Your task to perform on an android device: make emails show in primary in the gmail app Image 0: 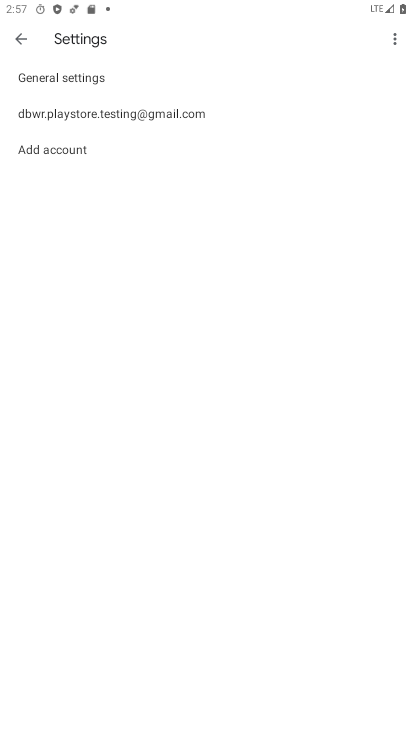
Step 0: press home button
Your task to perform on an android device: make emails show in primary in the gmail app Image 1: 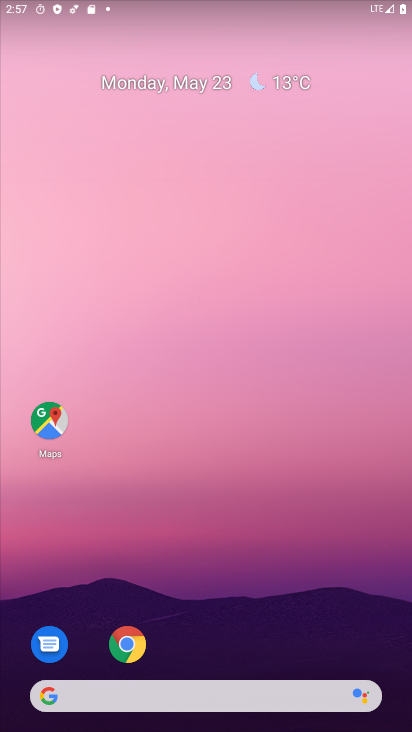
Step 1: drag from (173, 672) to (206, 200)
Your task to perform on an android device: make emails show in primary in the gmail app Image 2: 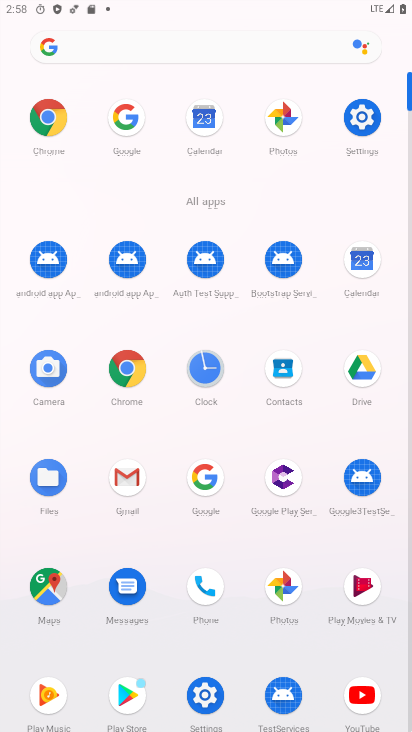
Step 2: click (115, 487)
Your task to perform on an android device: make emails show in primary in the gmail app Image 3: 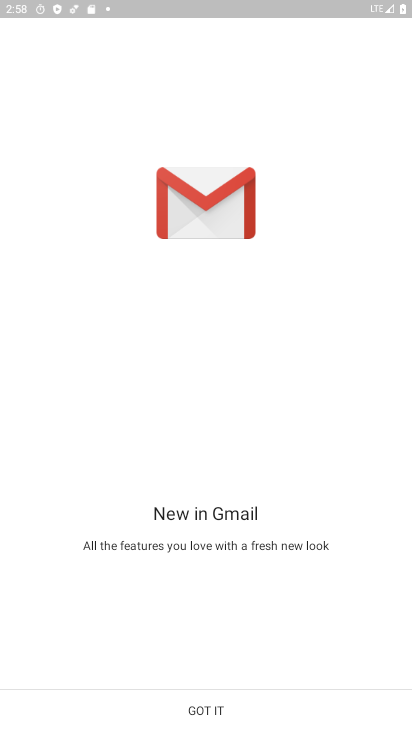
Step 3: click (186, 700)
Your task to perform on an android device: make emails show in primary in the gmail app Image 4: 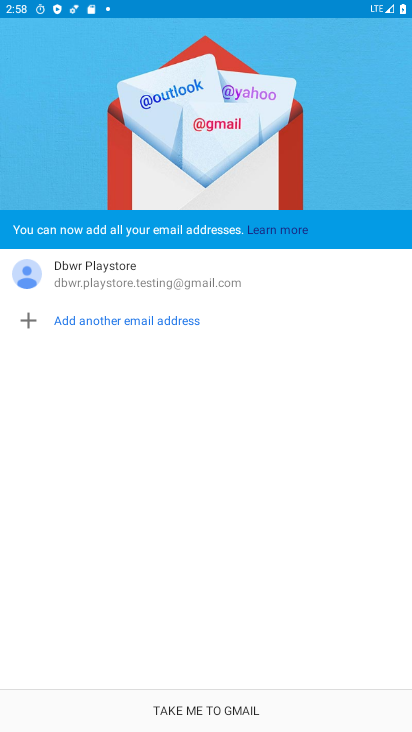
Step 4: click (282, 694)
Your task to perform on an android device: make emails show in primary in the gmail app Image 5: 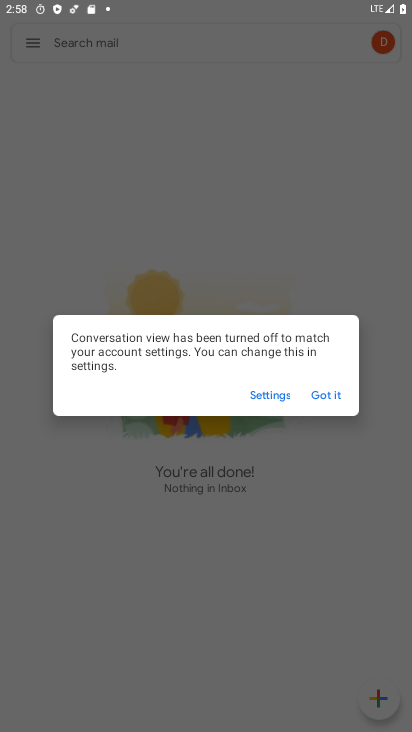
Step 5: click (321, 383)
Your task to perform on an android device: make emails show in primary in the gmail app Image 6: 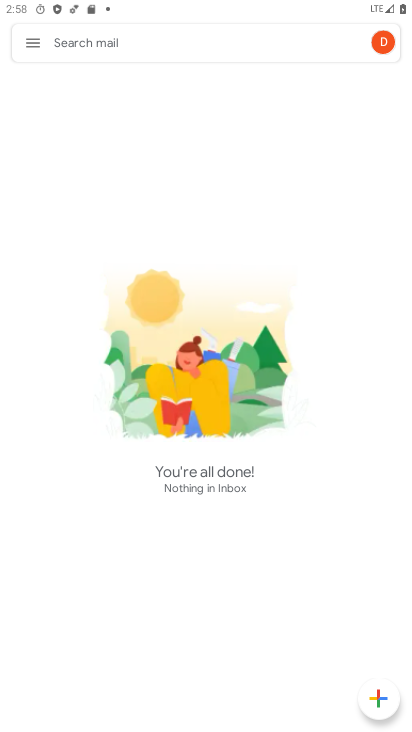
Step 6: click (32, 25)
Your task to perform on an android device: make emails show in primary in the gmail app Image 7: 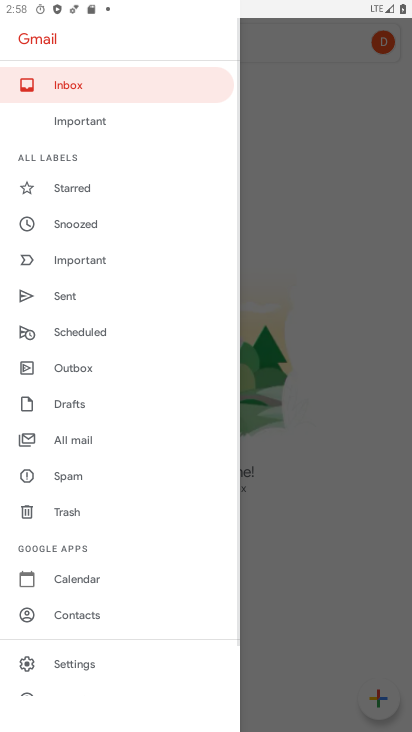
Step 7: click (89, 647)
Your task to perform on an android device: make emails show in primary in the gmail app Image 8: 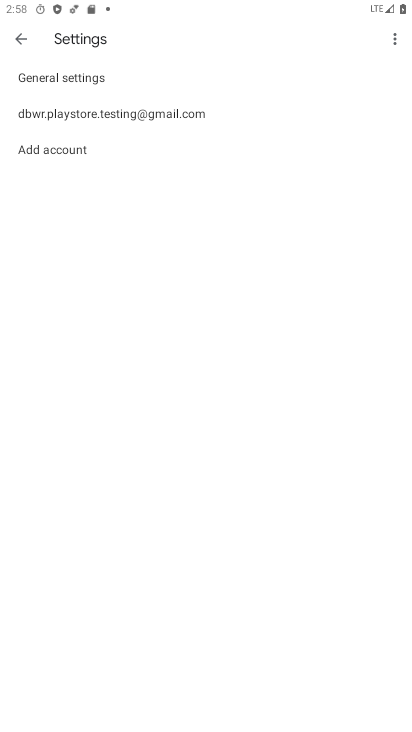
Step 8: click (100, 121)
Your task to perform on an android device: make emails show in primary in the gmail app Image 9: 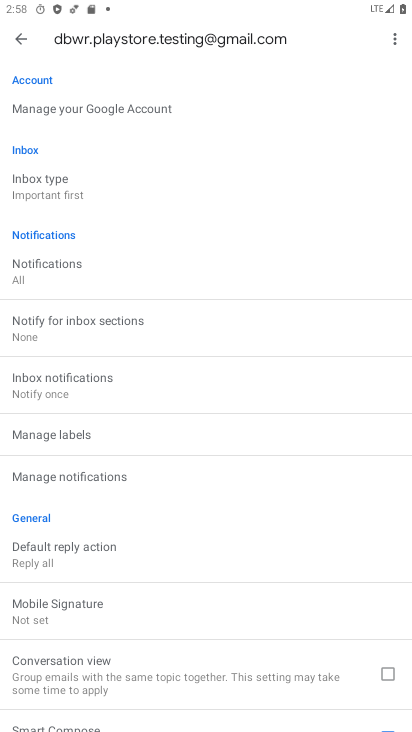
Step 9: click (63, 178)
Your task to perform on an android device: make emails show in primary in the gmail app Image 10: 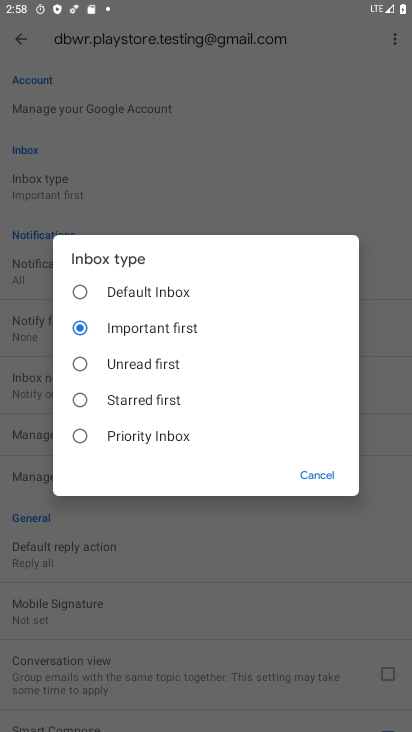
Step 10: click (130, 428)
Your task to perform on an android device: make emails show in primary in the gmail app Image 11: 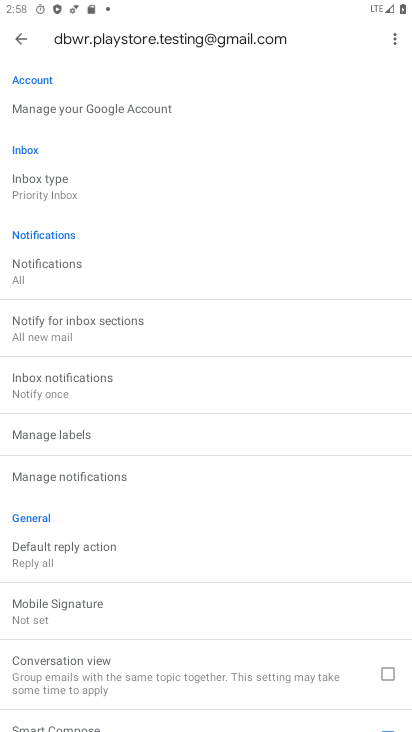
Step 11: click (50, 192)
Your task to perform on an android device: make emails show in primary in the gmail app Image 12: 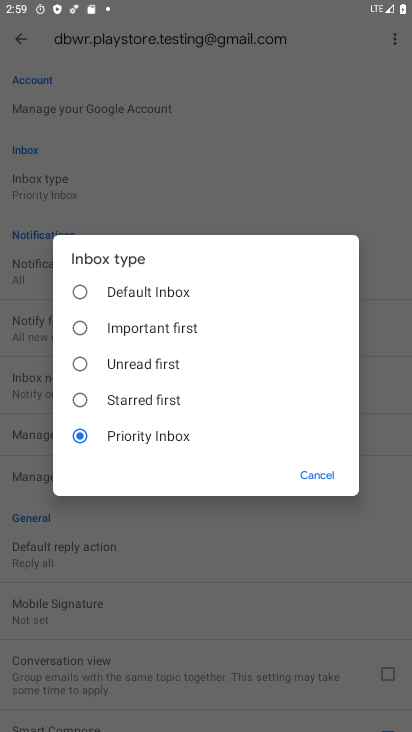
Step 12: click (115, 286)
Your task to perform on an android device: make emails show in primary in the gmail app Image 13: 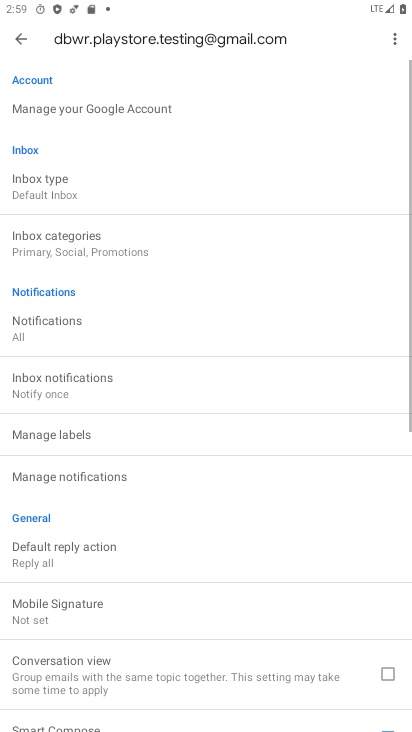
Step 13: task complete